Your task to perform on an android device: Go to Wikipedia Image 0: 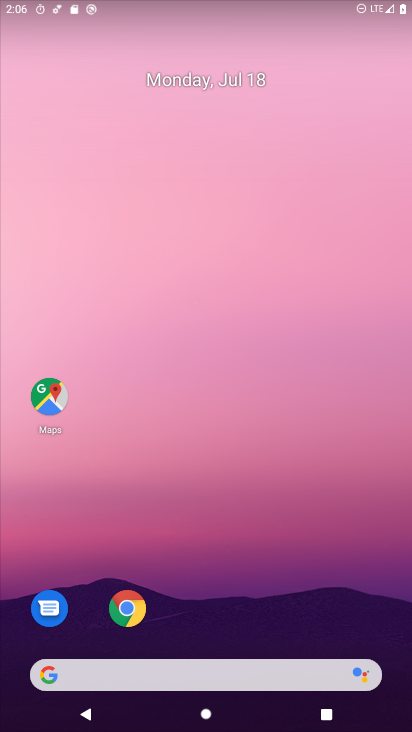
Step 0: drag from (240, 712) to (224, 204)
Your task to perform on an android device: Go to Wikipedia Image 1: 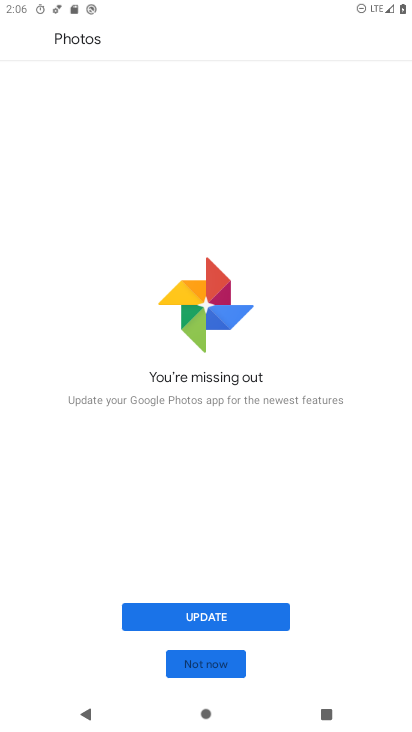
Step 1: press home button
Your task to perform on an android device: Go to Wikipedia Image 2: 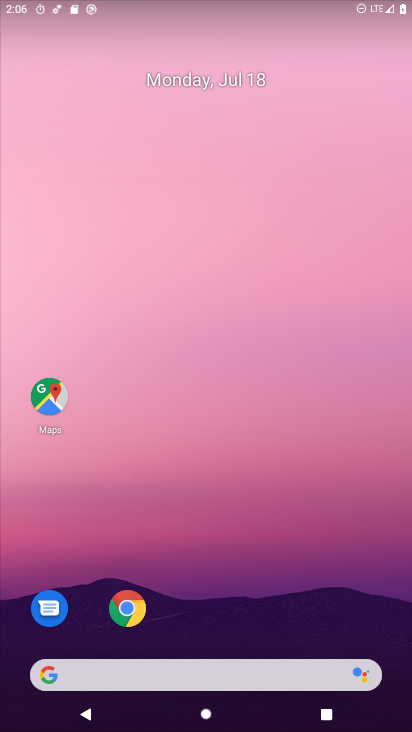
Step 2: click (132, 618)
Your task to perform on an android device: Go to Wikipedia Image 3: 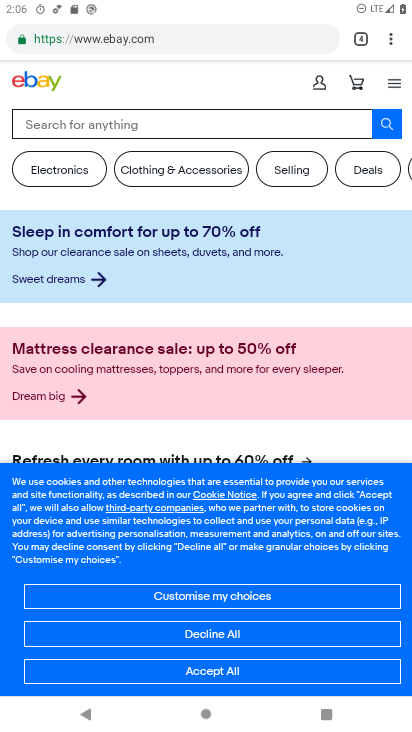
Step 3: click (389, 42)
Your task to perform on an android device: Go to Wikipedia Image 4: 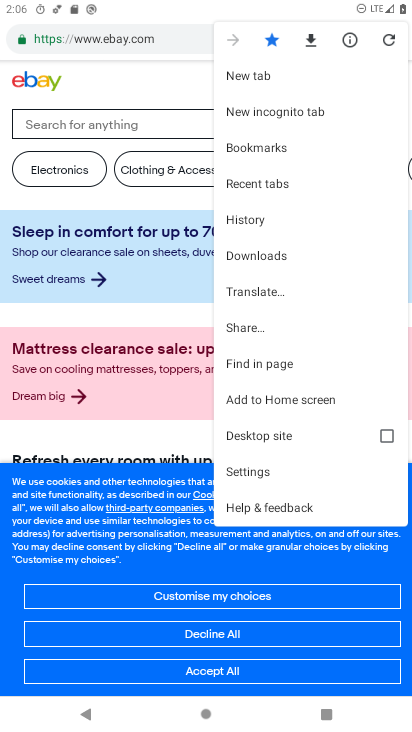
Step 4: click (246, 77)
Your task to perform on an android device: Go to Wikipedia Image 5: 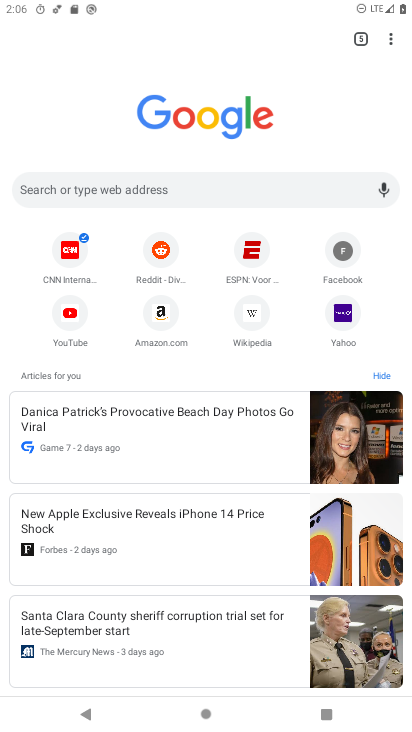
Step 5: click (249, 316)
Your task to perform on an android device: Go to Wikipedia Image 6: 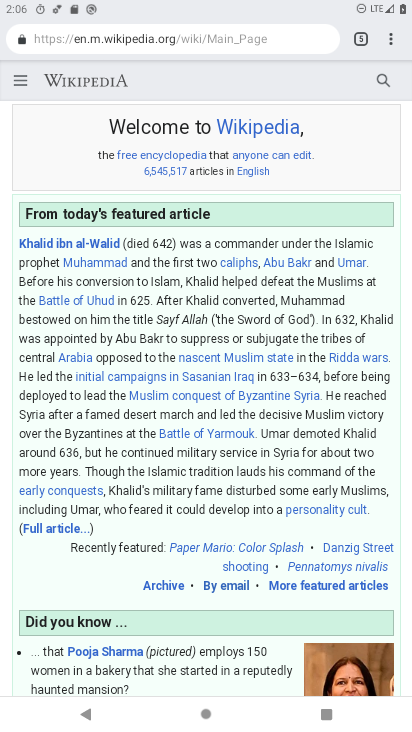
Step 6: task complete